Your task to perform on an android device: set the timer Image 0: 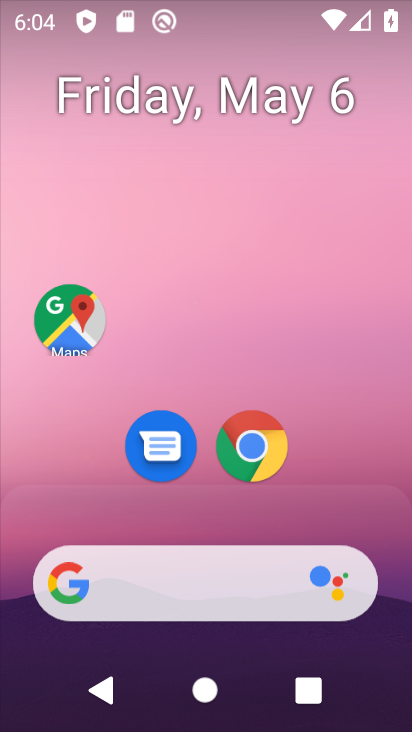
Step 0: drag from (322, 427) to (335, 219)
Your task to perform on an android device: set the timer Image 1: 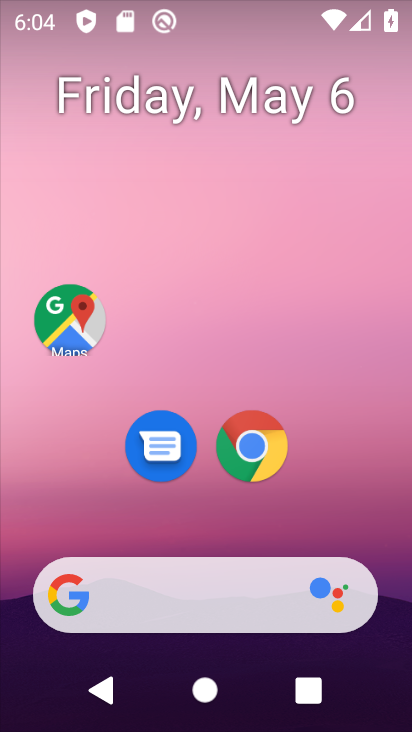
Step 1: drag from (332, 388) to (372, 102)
Your task to perform on an android device: set the timer Image 2: 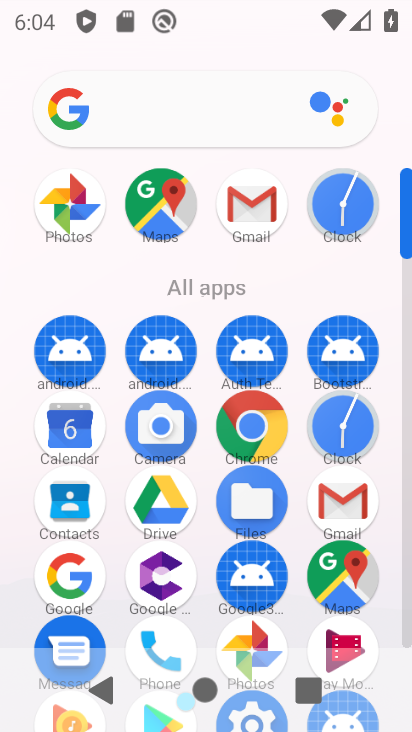
Step 2: click (351, 429)
Your task to perform on an android device: set the timer Image 3: 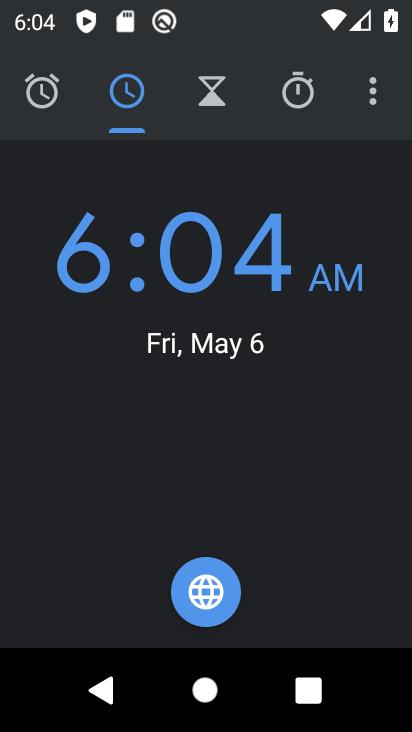
Step 3: click (370, 97)
Your task to perform on an android device: set the timer Image 4: 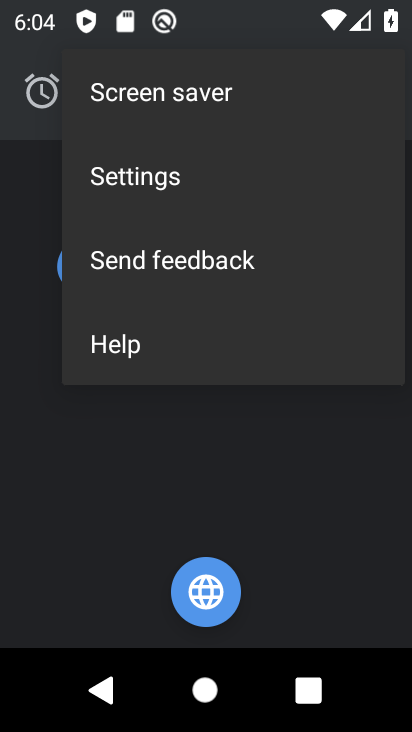
Step 4: click (0, 103)
Your task to perform on an android device: set the timer Image 5: 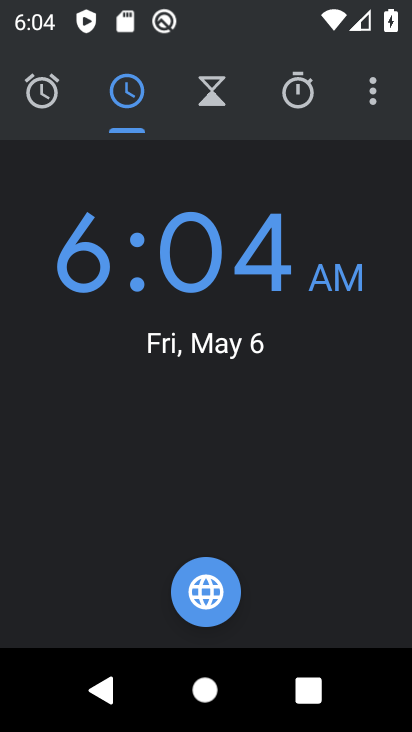
Step 5: click (210, 101)
Your task to perform on an android device: set the timer Image 6: 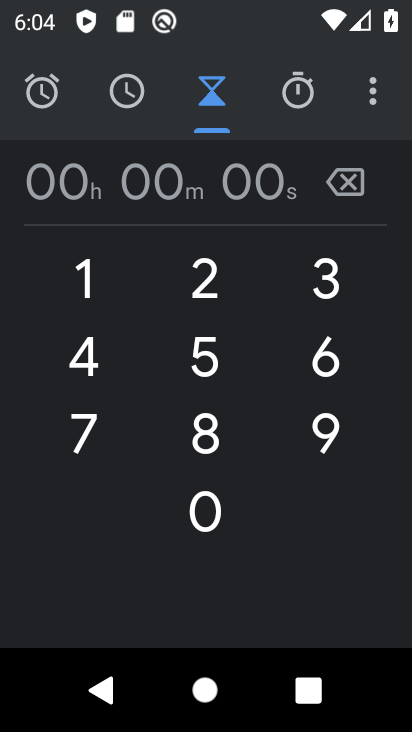
Step 6: click (90, 275)
Your task to perform on an android device: set the timer Image 7: 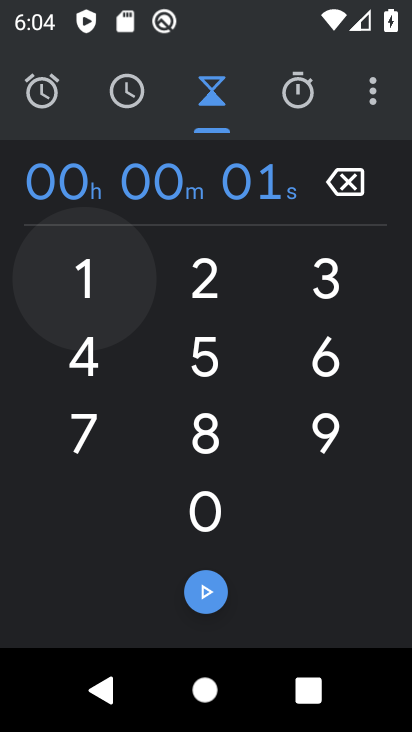
Step 7: click (211, 507)
Your task to perform on an android device: set the timer Image 8: 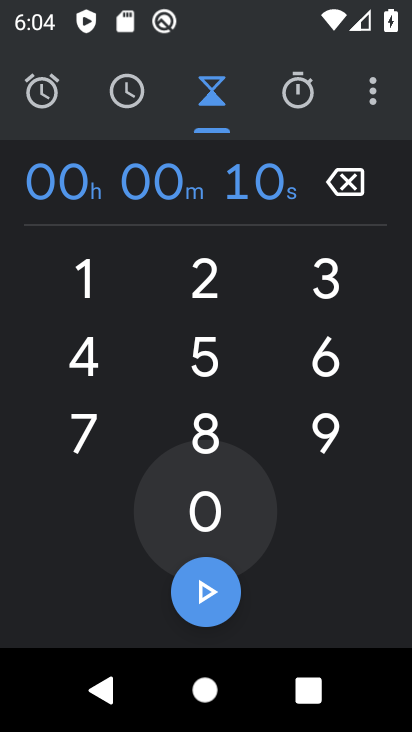
Step 8: click (190, 277)
Your task to perform on an android device: set the timer Image 9: 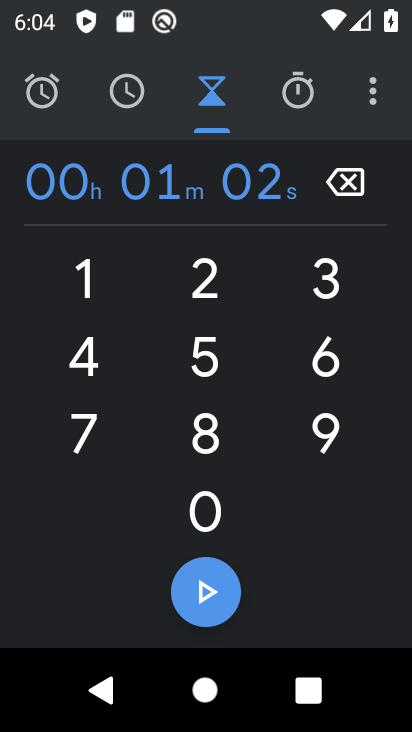
Step 9: click (211, 499)
Your task to perform on an android device: set the timer Image 10: 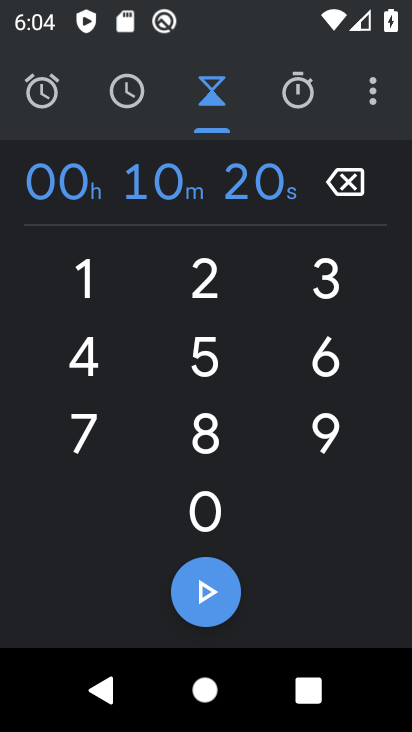
Step 10: click (219, 588)
Your task to perform on an android device: set the timer Image 11: 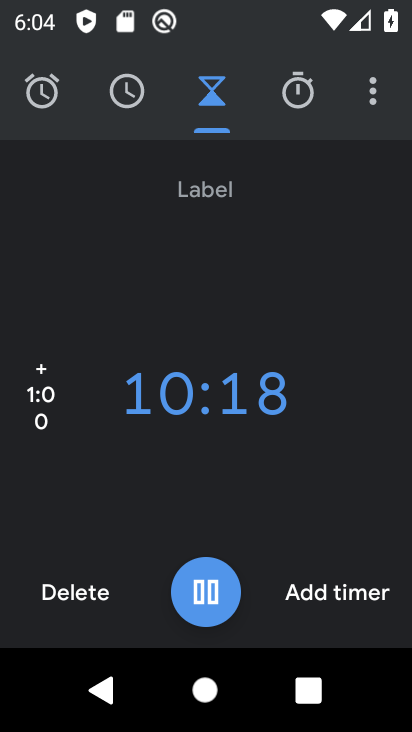
Step 11: click (307, 602)
Your task to perform on an android device: set the timer Image 12: 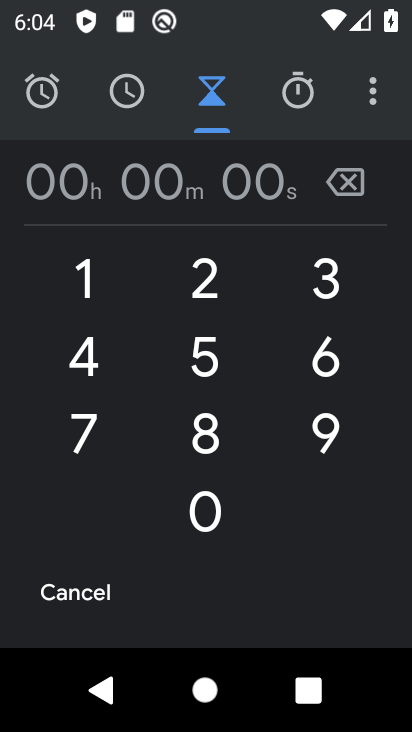
Step 12: task complete